Your task to perform on an android device: What is the recent news? Image 0: 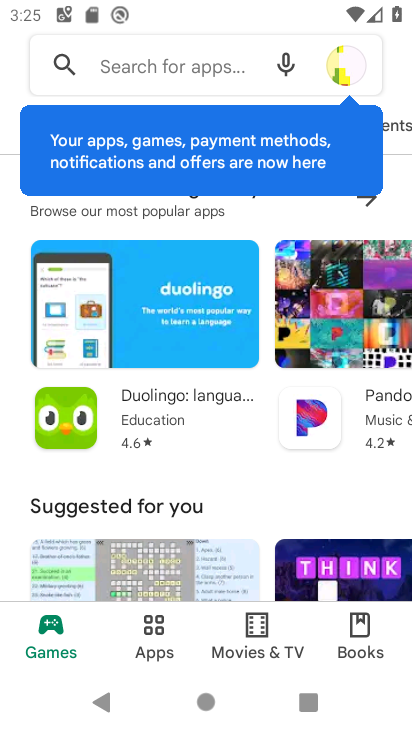
Step 0: press back button
Your task to perform on an android device: What is the recent news? Image 1: 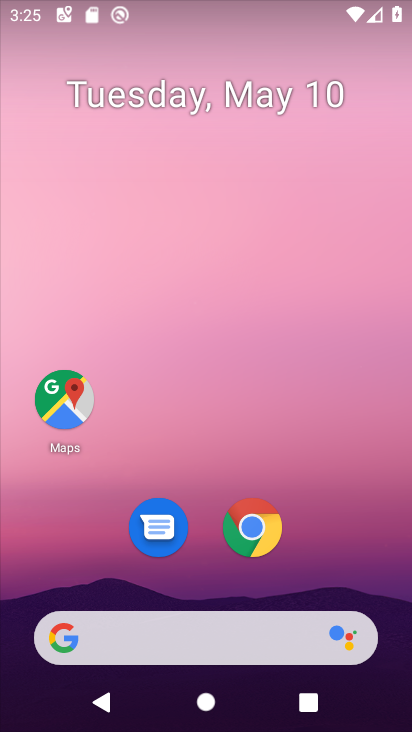
Step 1: drag from (389, 603) to (365, 278)
Your task to perform on an android device: What is the recent news? Image 2: 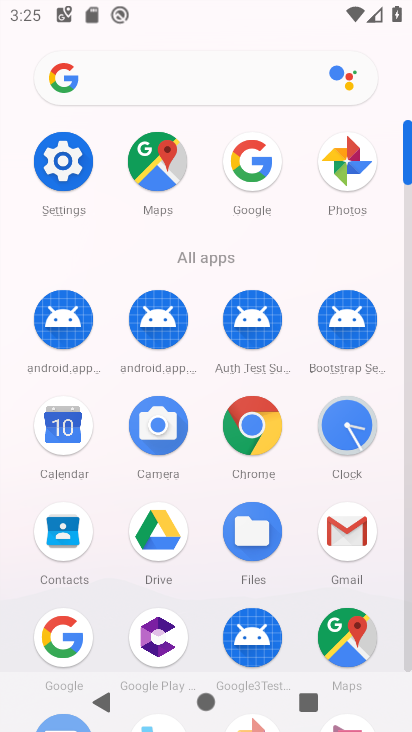
Step 2: click (65, 637)
Your task to perform on an android device: What is the recent news? Image 3: 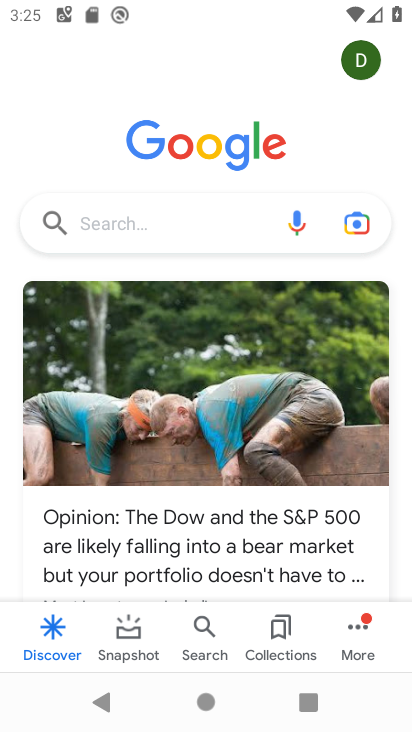
Step 3: task complete